Your task to perform on an android device: check android version Image 0: 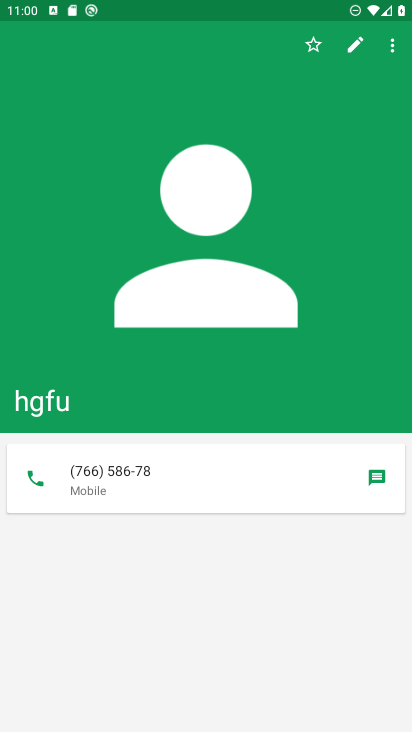
Step 0: press home button
Your task to perform on an android device: check android version Image 1: 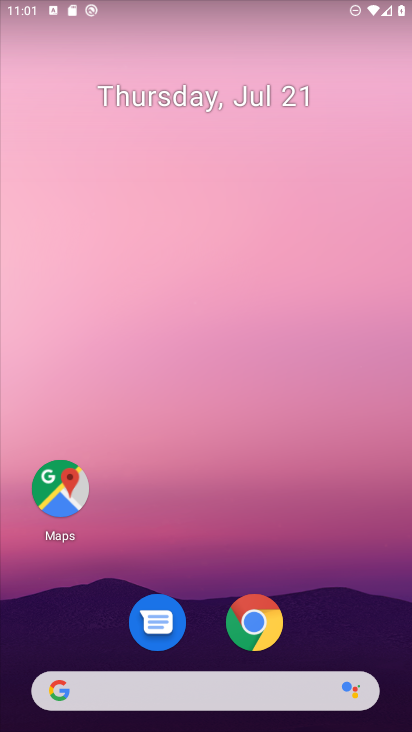
Step 1: drag from (178, 715) to (184, 4)
Your task to perform on an android device: check android version Image 2: 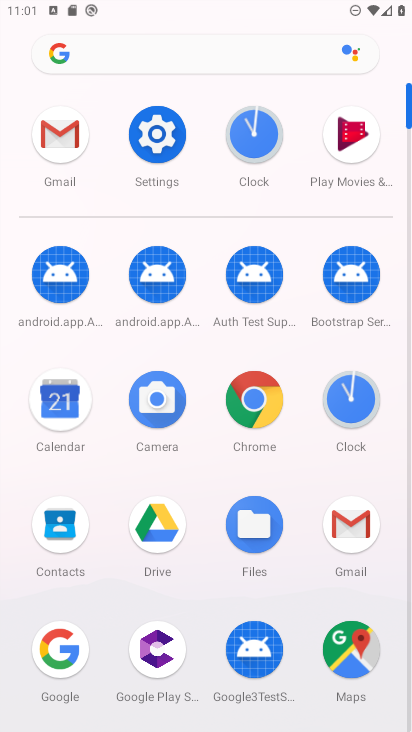
Step 2: click (150, 139)
Your task to perform on an android device: check android version Image 3: 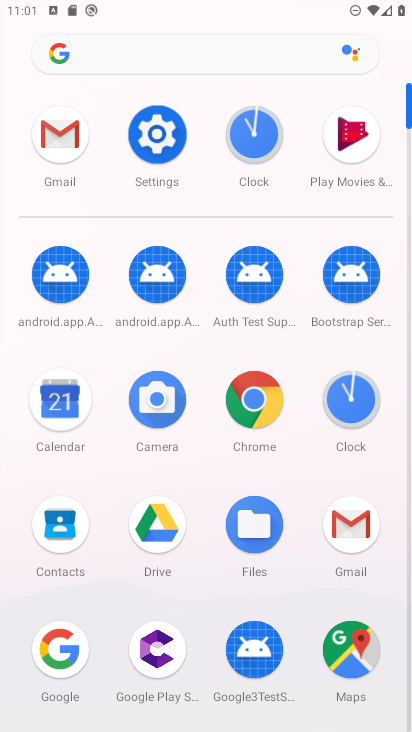
Step 3: click (150, 139)
Your task to perform on an android device: check android version Image 4: 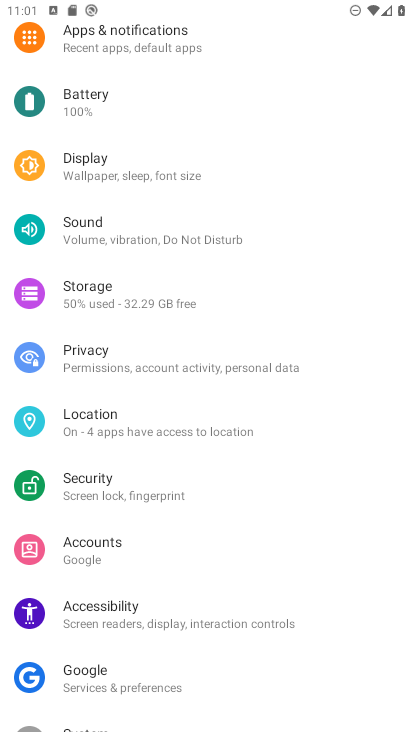
Step 4: drag from (237, 590) to (216, 52)
Your task to perform on an android device: check android version Image 5: 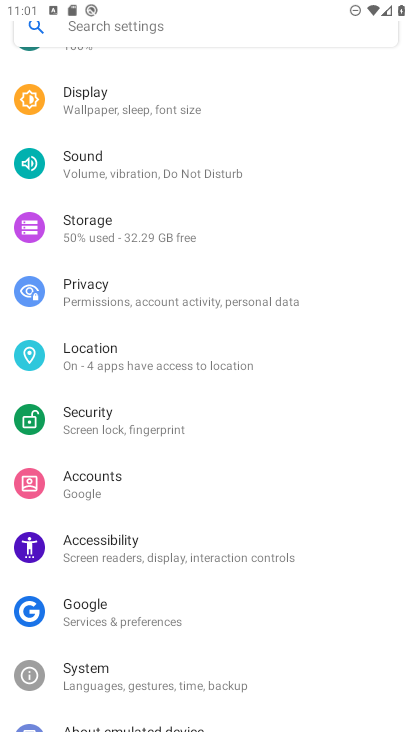
Step 5: drag from (279, 658) to (303, 53)
Your task to perform on an android device: check android version Image 6: 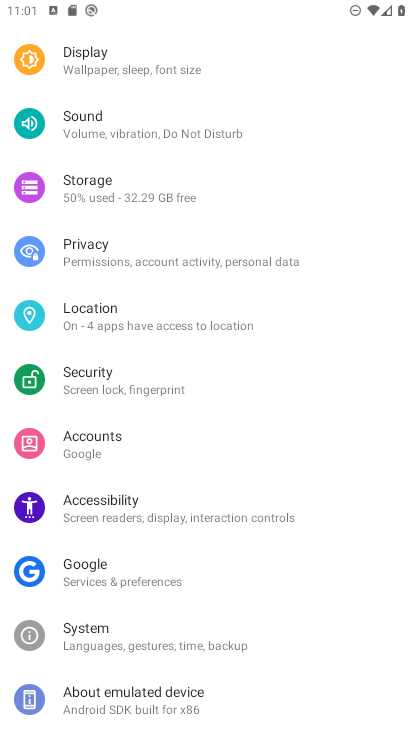
Step 6: click (184, 692)
Your task to perform on an android device: check android version Image 7: 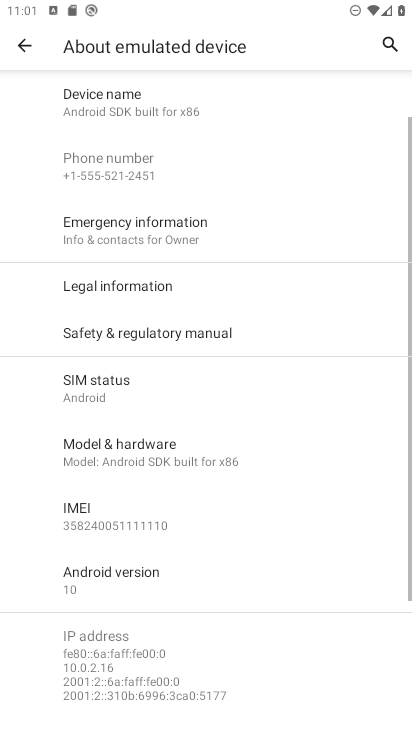
Step 7: task complete